Your task to perform on an android device: turn off data saver in the chrome app Image 0: 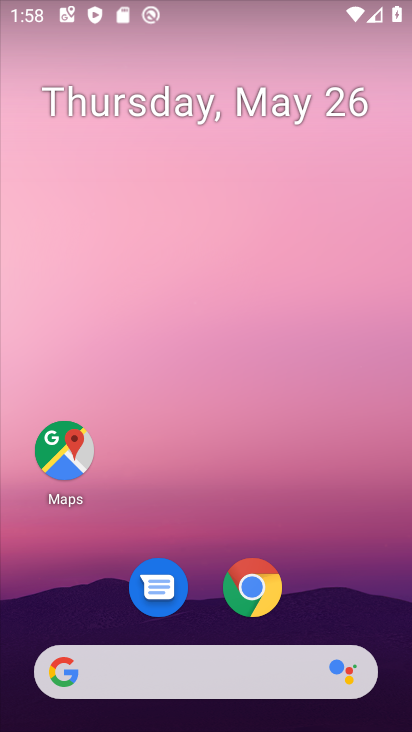
Step 0: drag from (327, 595) to (345, 132)
Your task to perform on an android device: turn off data saver in the chrome app Image 1: 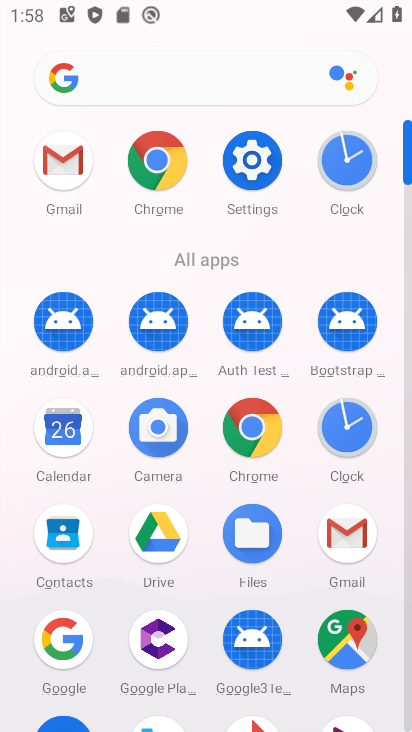
Step 1: click (251, 434)
Your task to perform on an android device: turn off data saver in the chrome app Image 2: 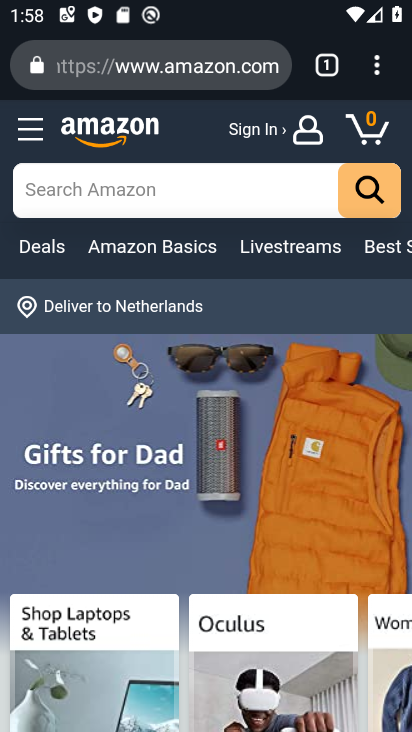
Step 2: drag from (381, 70) to (214, 644)
Your task to perform on an android device: turn off data saver in the chrome app Image 3: 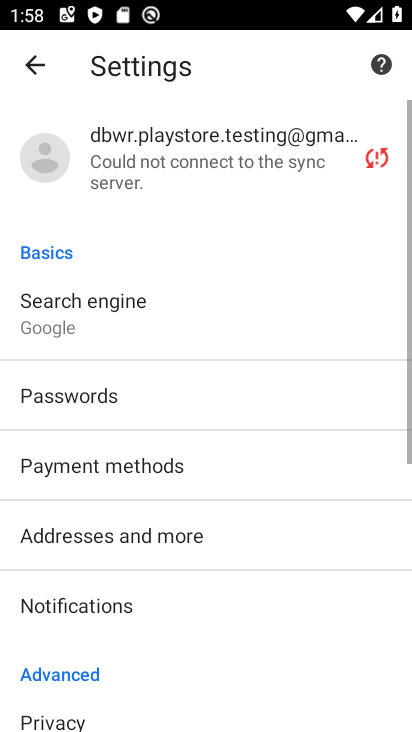
Step 3: drag from (214, 632) to (340, 49)
Your task to perform on an android device: turn off data saver in the chrome app Image 4: 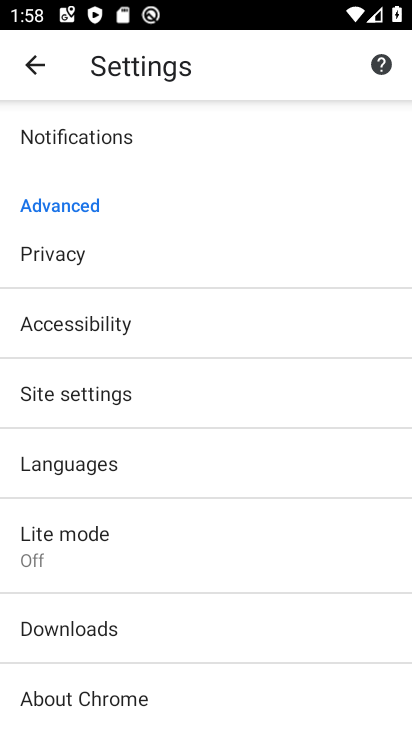
Step 4: click (122, 543)
Your task to perform on an android device: turn off data saver in the chrome app Image 5: 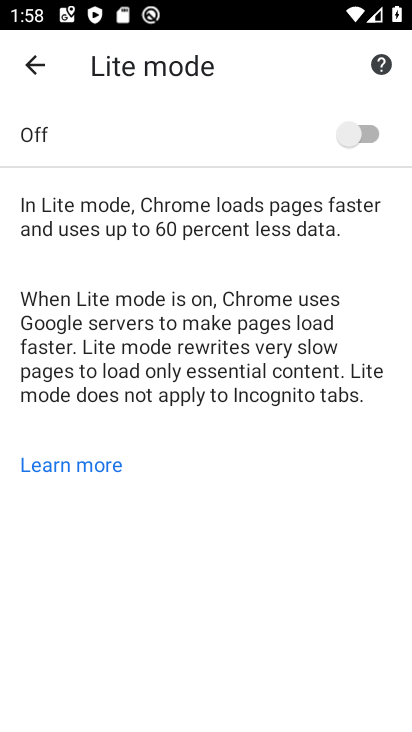
Step 5: task complete